Your task to perform on an android device: Open my contact list Image 0: 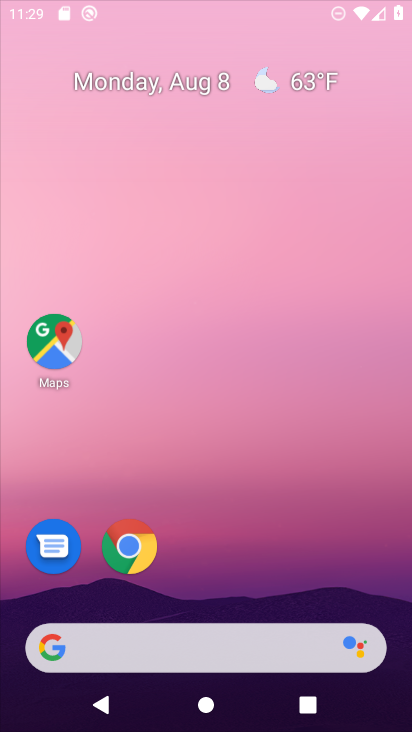
Step 0: press home button
Your task to perform on an android device: Open my contact list Image 1: 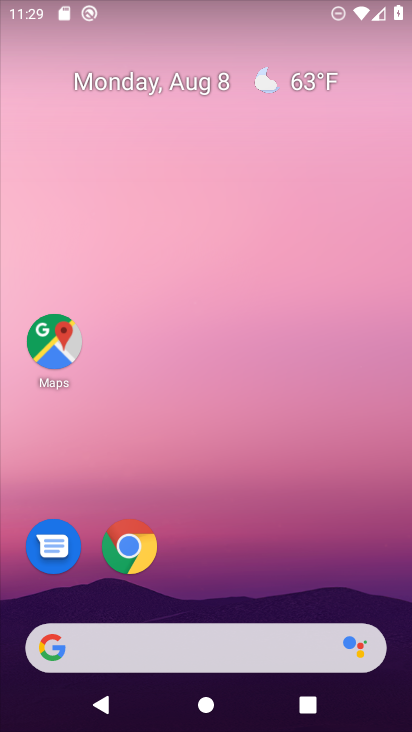
Step 1: click (202, 57)
Your task to perform on an android device: Open my contact list Image 2: 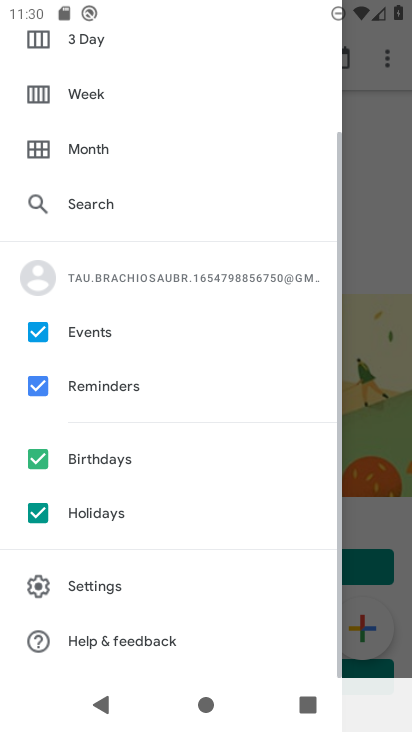
Step 2: press home button
Your task to perform on an android device: Open my contact list Image 3: 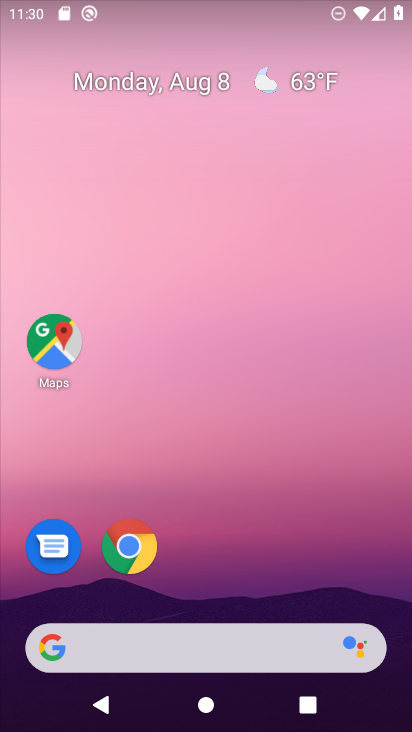
Step 3: drag from (232, 599) to (214, 48)
Your task to perform on an android device: Open my contact list Image 4: 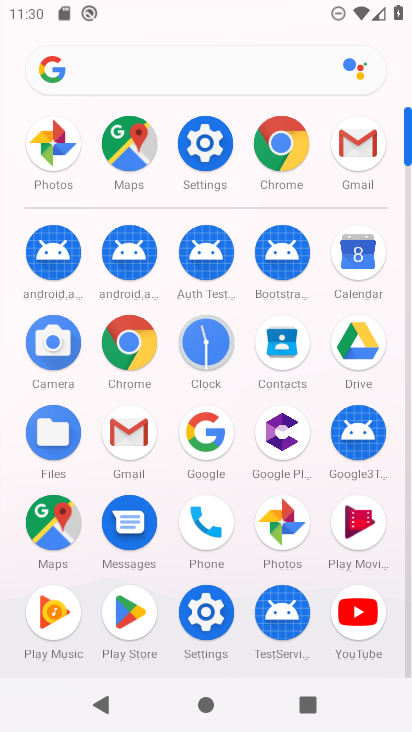
Step 4: click (281, 339)
Your task to perform on an android device: Open my contact list Image 5: 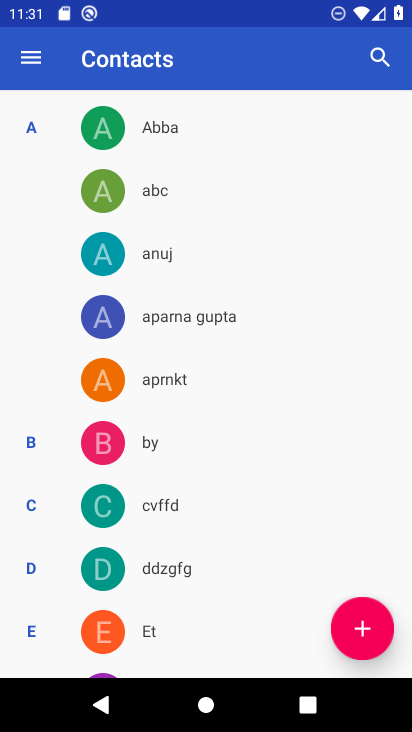
Step 5: task complete